Your task to perform on an android device: read, delete, or share a saved page in the chrome app Image 0: 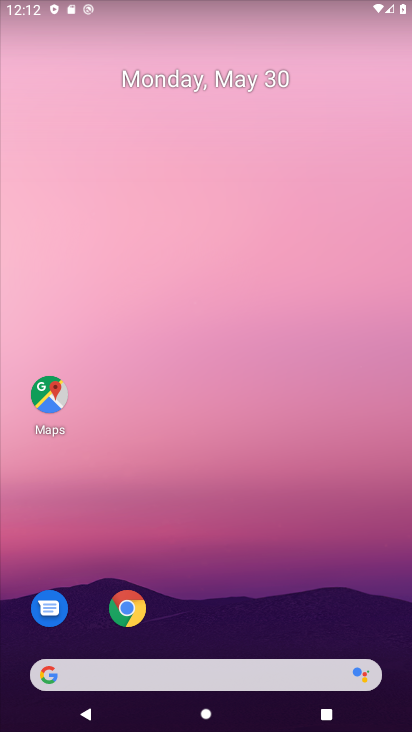
Step 0: drag from (258, 634) to (303, 36)
Your task to perform on an android device: read, delete, or share a saved page in the chrome app Image 1: 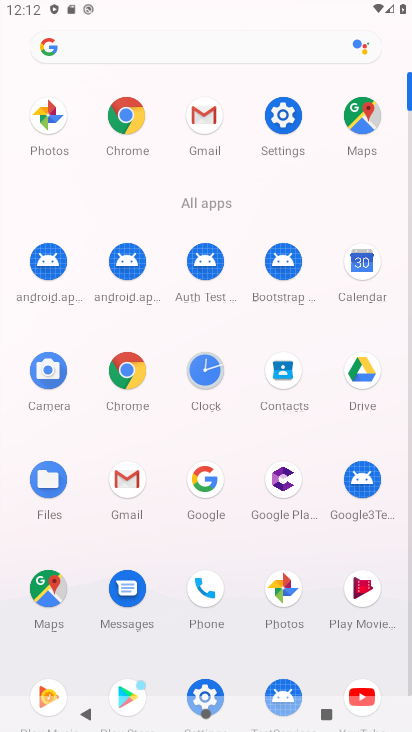
Step 1: click (130, 372)
Your task to perform on an android device: read, delete, or share a saved page in the chrome app Image 2: 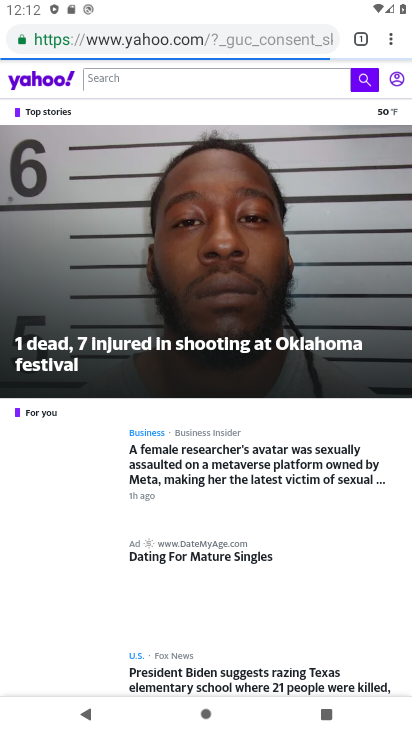
Step 2: click (395, 38)
Your task to perform on an android device: read, delete, or share a saved page in the chrome app Image 3: 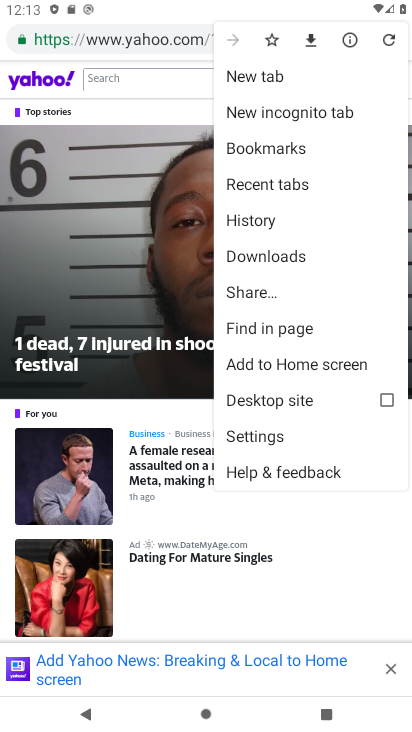
Step 3: click (279, 256)
Your task to perform on an android device: read, delete, or share a saved page in the chrome app Image 4: 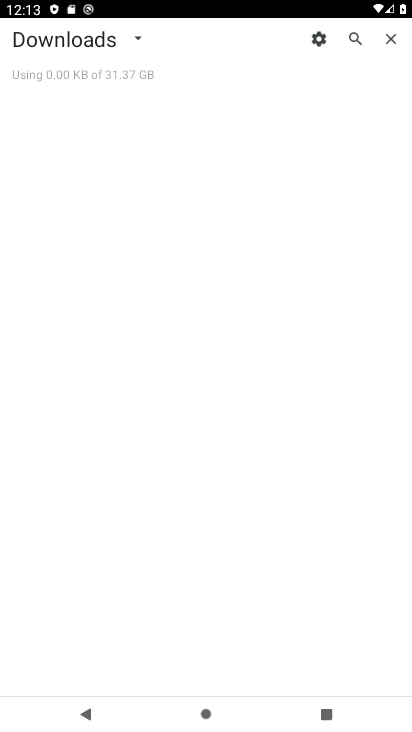
Step 4: click (139, 41)
Your task to perform on an android device: read, delete, or share a saved page in the chrome app Image 5: 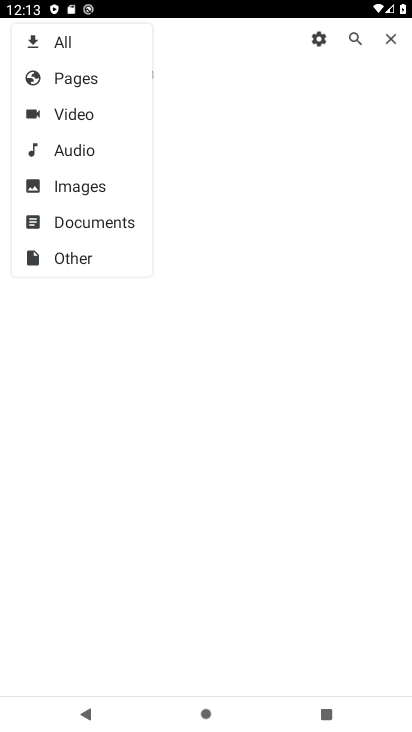
Step 5: click (91, 77)
Your task to perform on an android device: read, delete, or share a saved page in the chrome app Image 6: 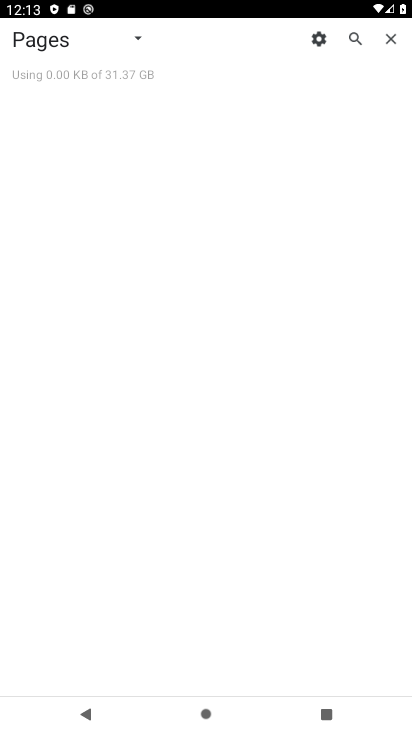
Step 6: task complete